Your task to perform on an android device: change notifications settings Image 0: 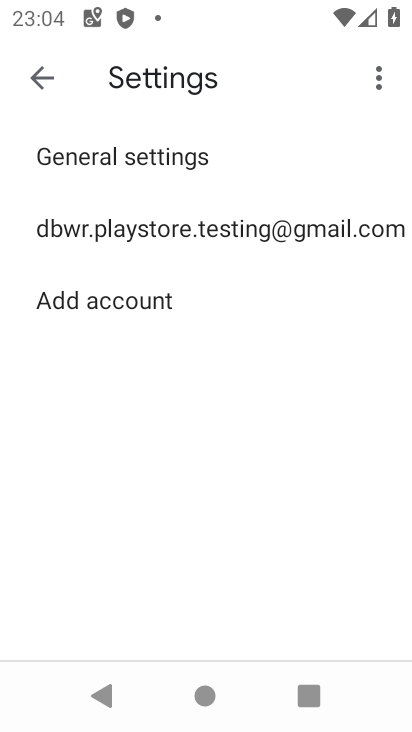
Step 0: press home button
Your task to perform on an android device: change notifications settings Image 1: 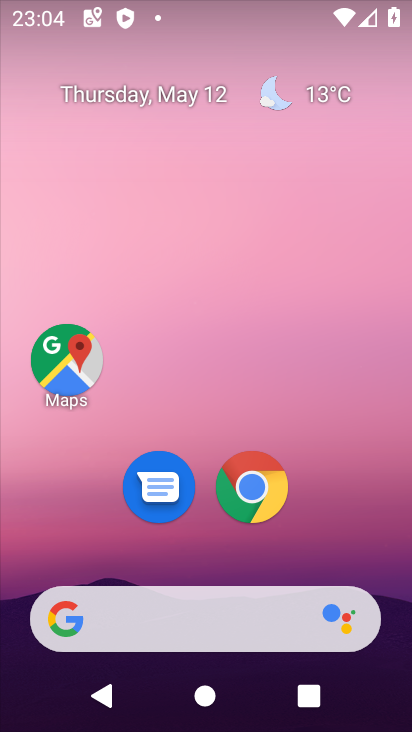
Step 1: drag from (221, 565) to (136, 340)
Your task to perform on an android device: change notifications settings Image 2: 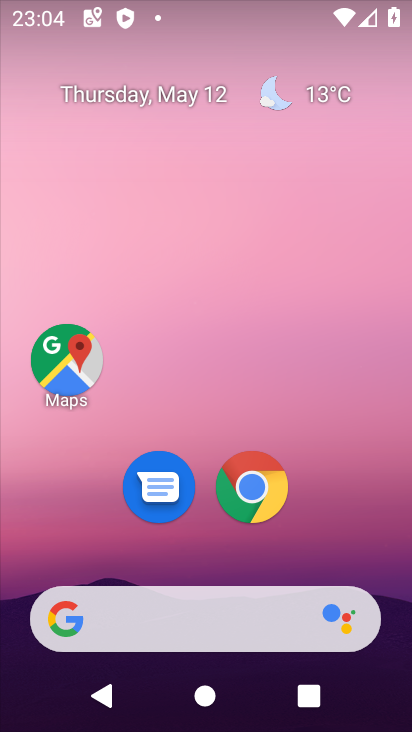
Step 2: drag from (201, 568) to (408, 289)
Your task to perform on an android device: change notifications settings Image 3: 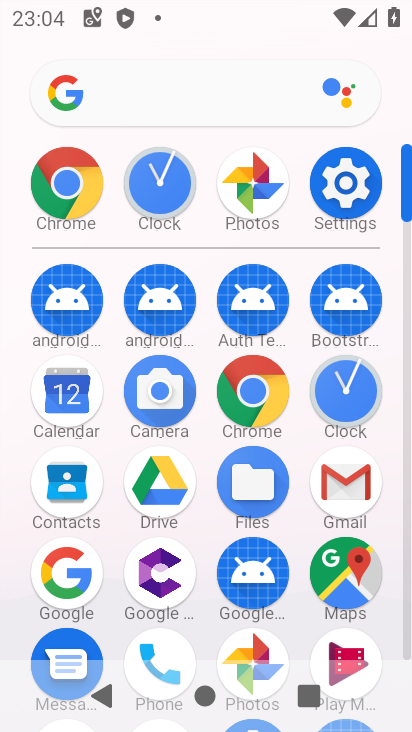
Step 3: click (385, 151)
Your task to perform on an android device: change notifications settings Image 4: 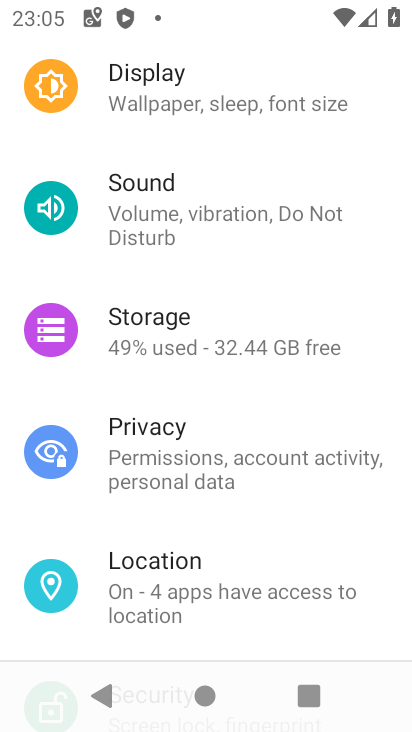
Step 4: drag from (248, 155) to (258, 596)
Your task to perform on an android device: change notifications settings Image 5: 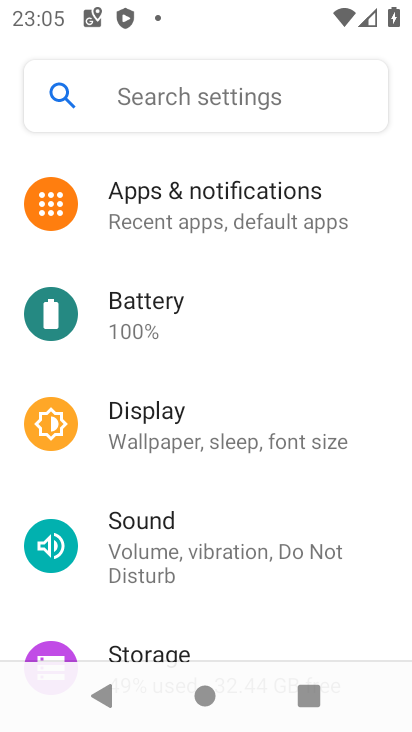
Step 5: click (205, 206)
Your task to perform on an android device: change notifications settings Image 6: 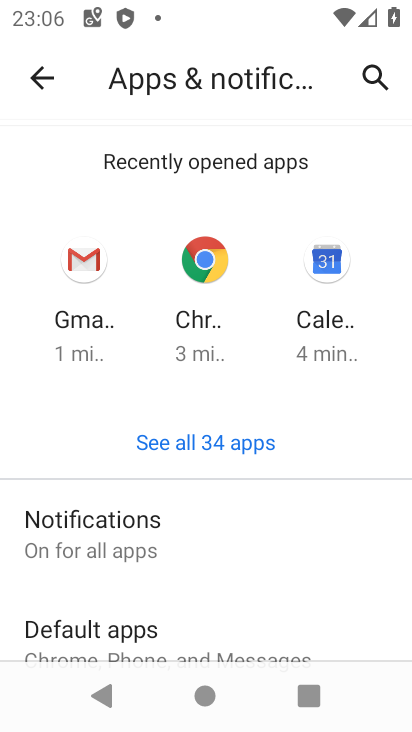
Step 6: drag from (192, 575) to (305, 235)
Your task to perform on an android device: change notifications settings Image 7: 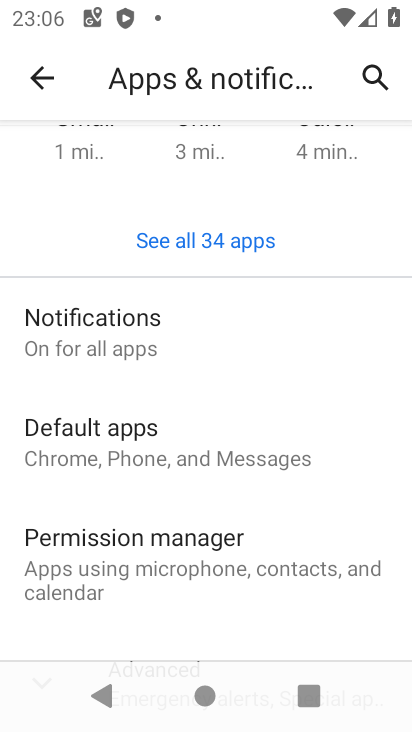
Step 7: click (203, 353)
Your task to perform on an android device: change notifications settings Image 8: 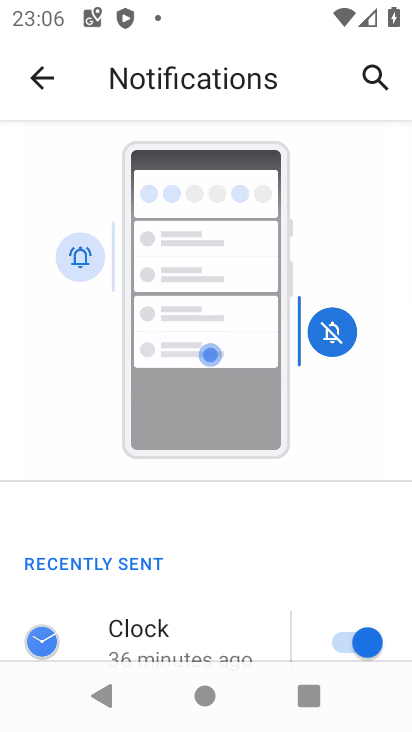
Step 8: drag from (162, 547) to (200, 397)
Your task to perform on an android device: change notifications settings Image 9: 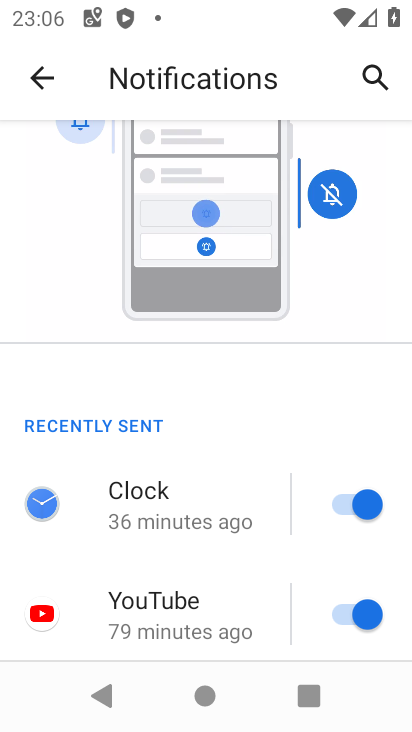
Step 9: drag from (235, 585) to (224, 281)
Your task to perform on an android device: change notifications settings Image 10: 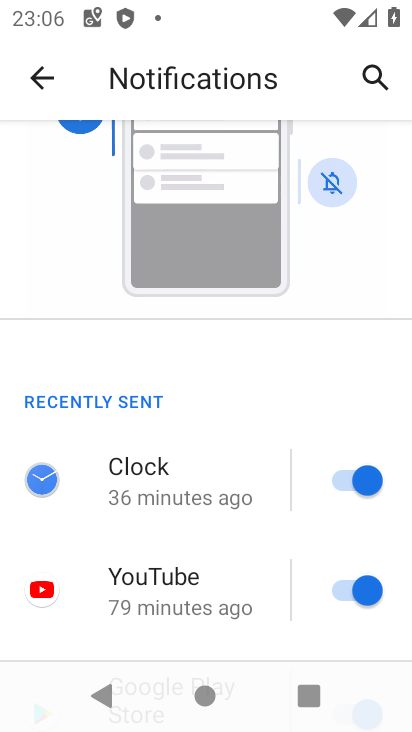
Step 10: drag from (185, 585) to (227, 78)
Your task to perform on an android device: change notifications settings Image 11: 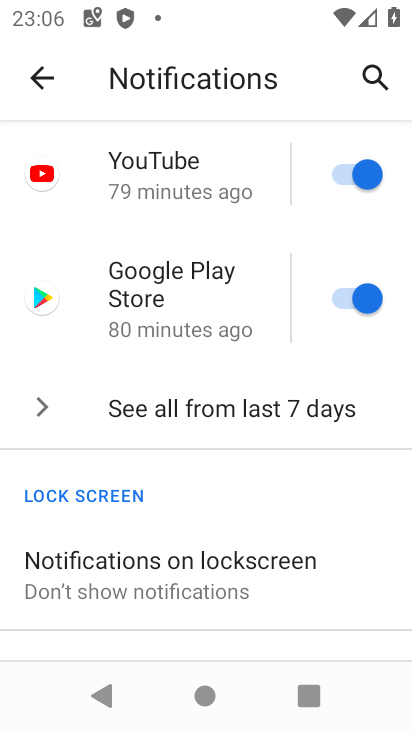
Step 11: drag from (202, 496) to (254, 129)
Your task to perform on an android device: change notifications settings Image 12: 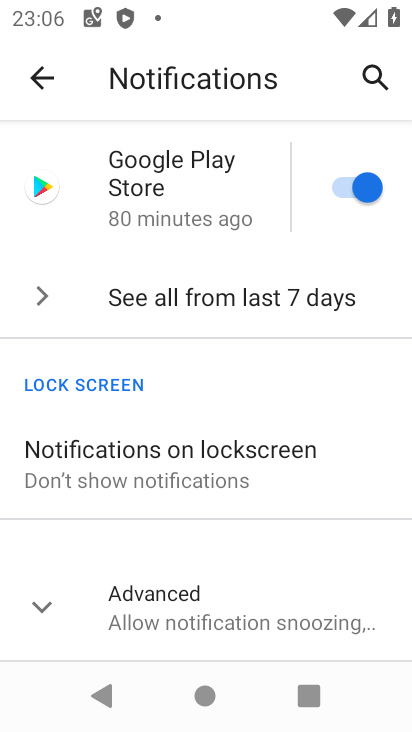
Step 12: click (130, 565)
Your task to perform on an android device: change notifications settings Image 13: 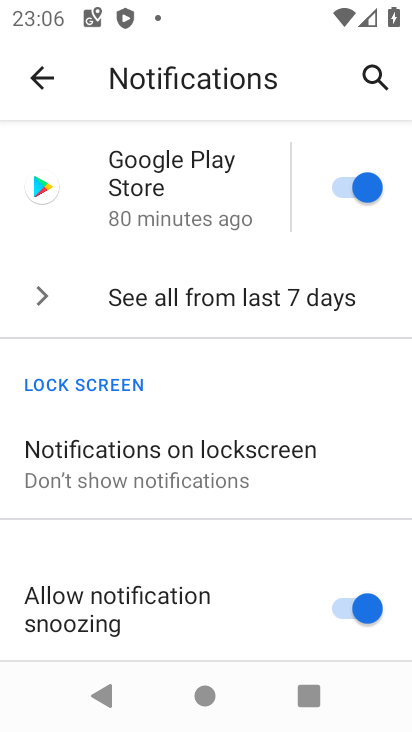
Step 13: drag from (260, 634) to (331, 39)
Your task to perform on an android device: change notifications settings Image 14: 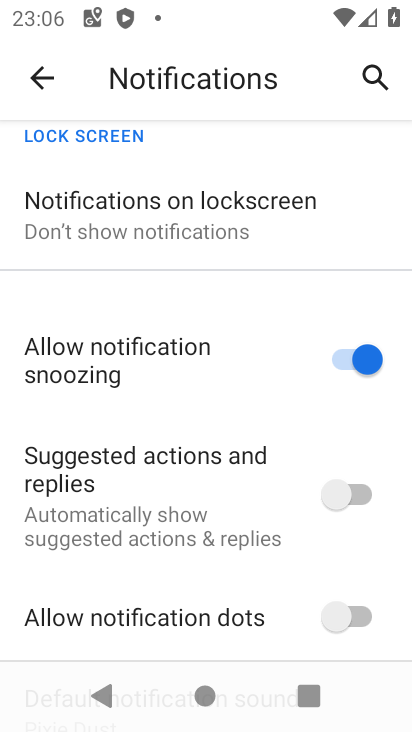
Step 14: click (352, 357)
Your task to perform on an android device: change notifications settings Image 15: 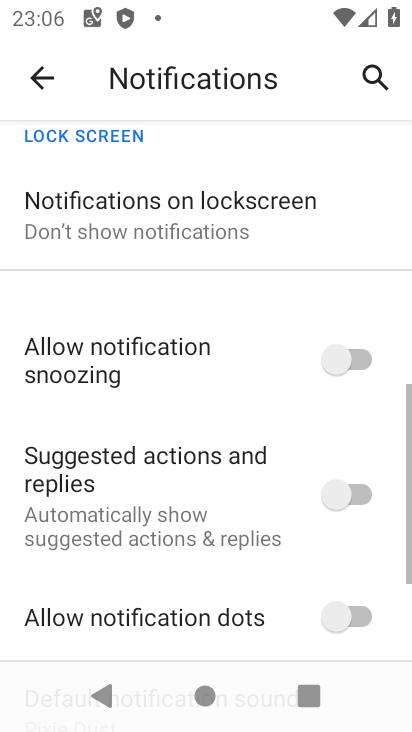
Step 15: click (360, 497)
Your task to perform on an android device: change notifications settings Image 16: 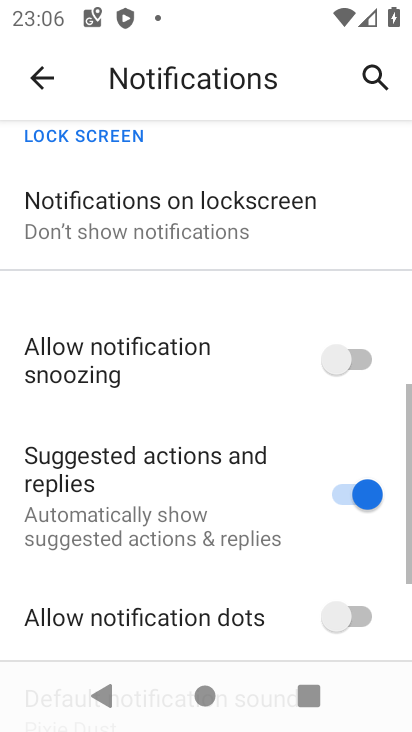
Step 16: click (365, 613)
Your task to perform on an android device: change notifications settings Image 17: 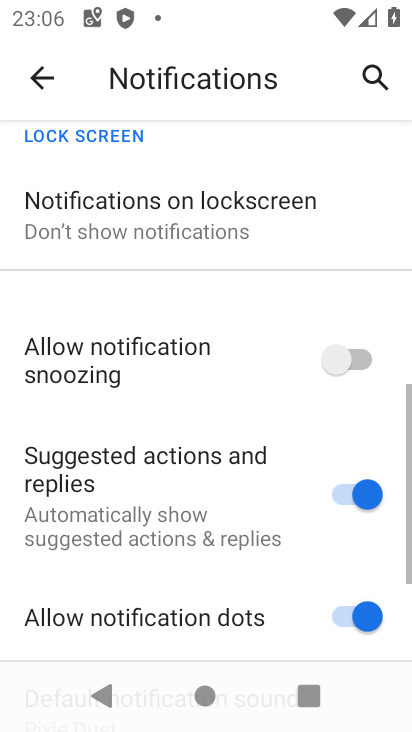
Step 17: task complete